Your task to perform on an android device: Open battery settings Image 0: 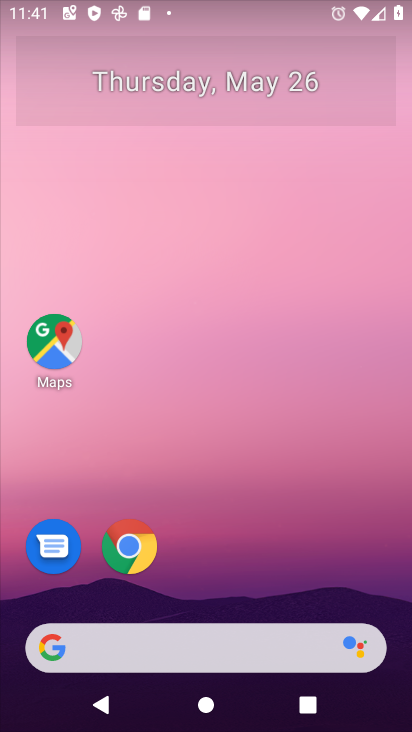
Step 0: drag from (208, 506) to (196, 107)
Your task to perform on an android device: Open battery settings Image 1: 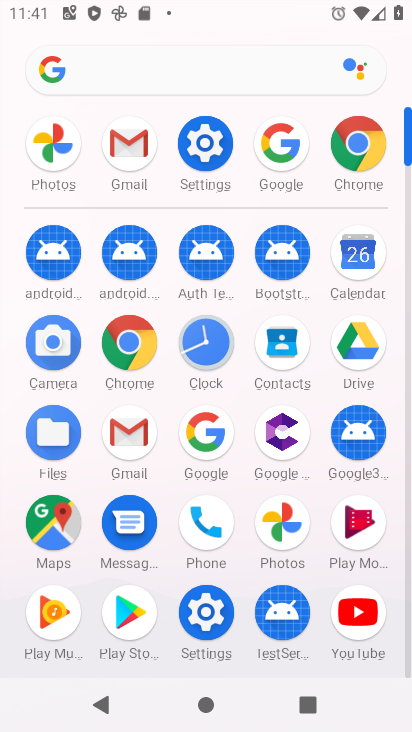
Step 1: click (205, 147)
Your task to perform on an android device: Open battery settings Image 2: 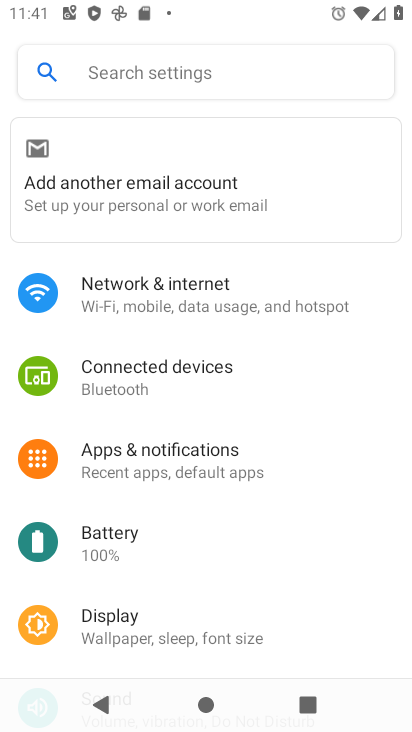
Step 2: click (155, 534)
Your task to perform on an android device: Open battery settings Image 3: 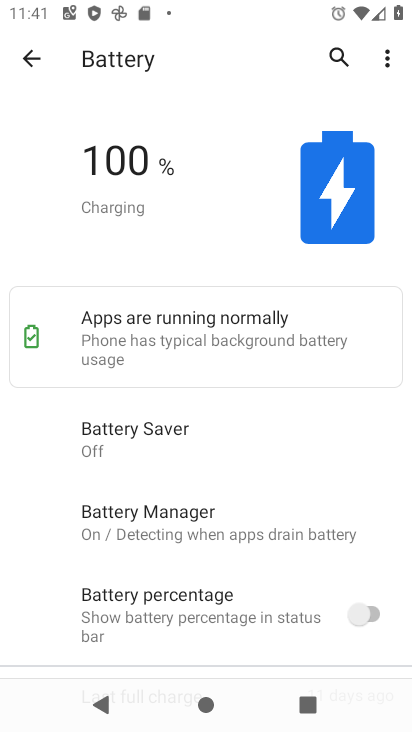
Step 3: task complete